Your task to perform on an android device: Go to notification settings Image 0: 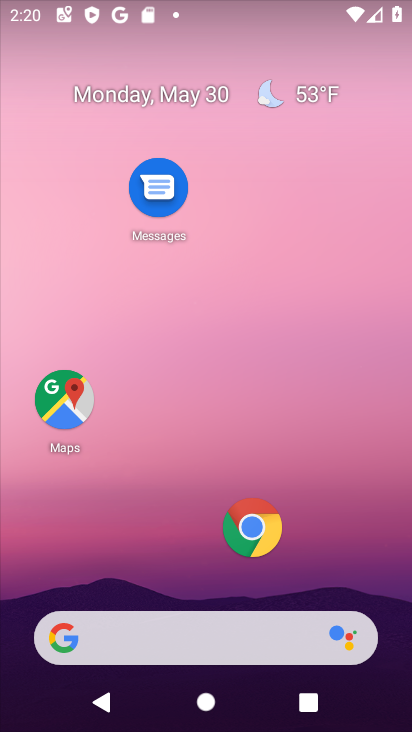
Step 0: drag from (169, 566) to (319, 49)
Your task to perform on an android device: Go to notification settings Image 1: 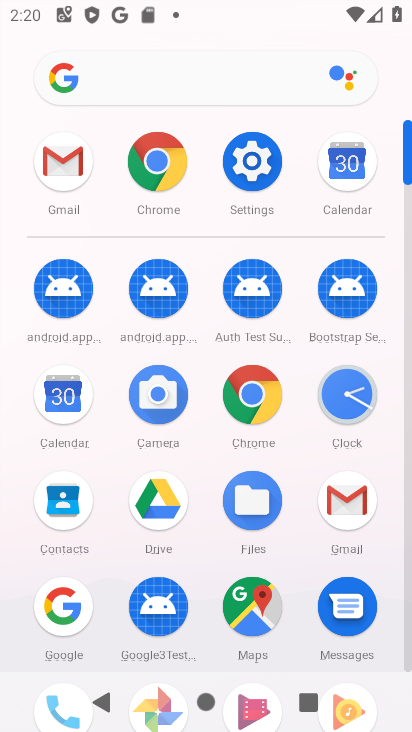
Step 1: drag from (207, 252) to (216, 54)
Your task to perform on an android device: Go to notification settings Image 2: 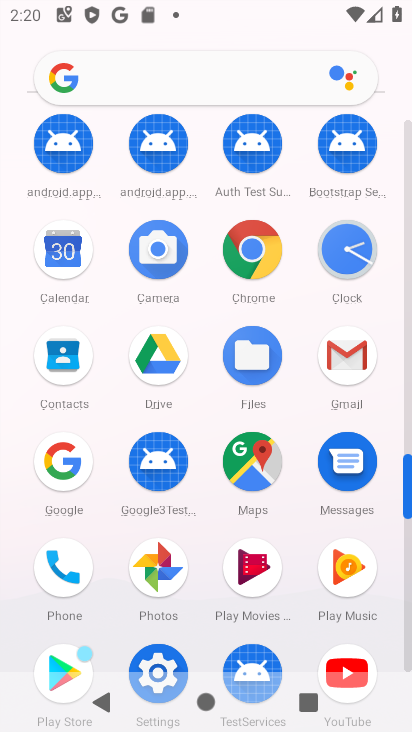
Step 2: click (167, 661)
Your task to perform on an android device: Go to notification settings Image 3: 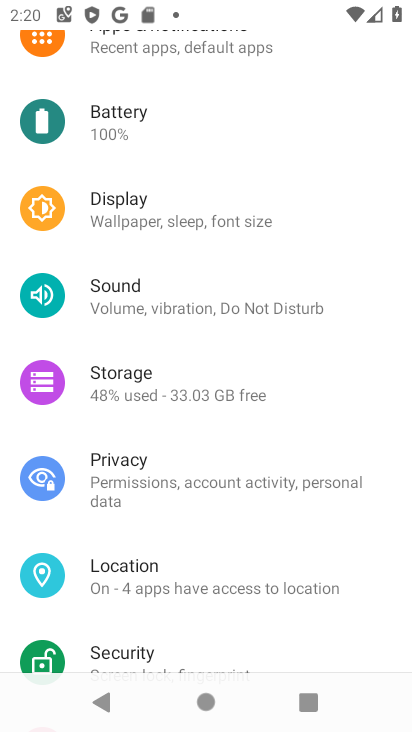
Step 3: drag from (221, 412) to (176, 601)
Your task to perform on an android device: Go to notification settings Image 4: 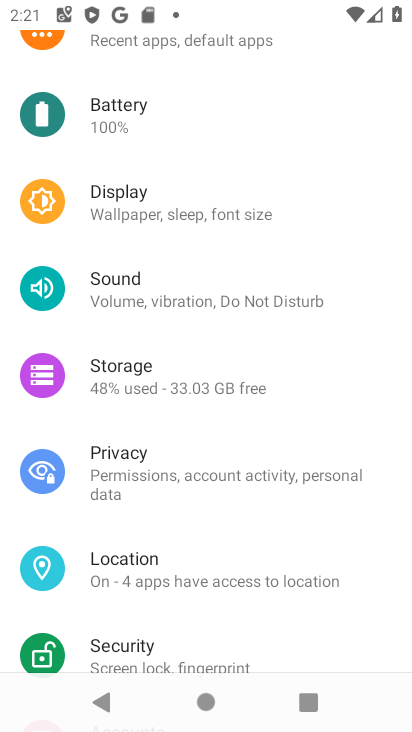
Step 4: drag from (260, 169) to (225, 544)
Your task to perform on an android device: Go to notification settings Image 5: 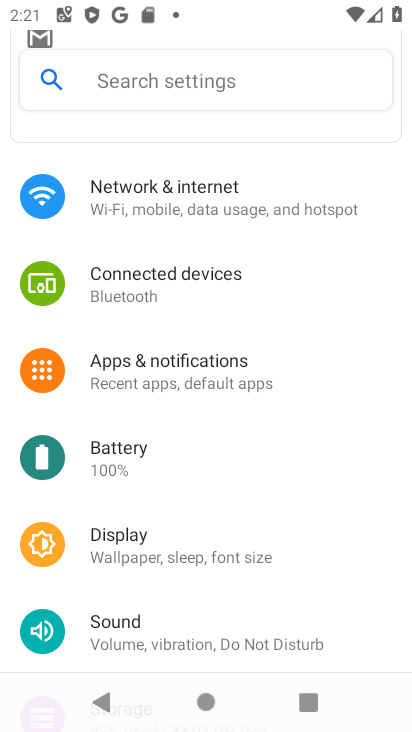
Step 5: click (176, 382)
Your task to perform on an android device: Go to notification settings Image 6: 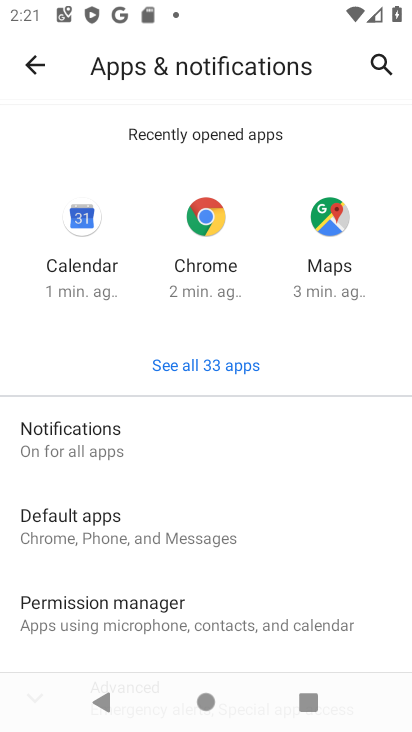
Step 6: click (198, 454)
Your task to perform on an android device: Go to notification settings Image 7: 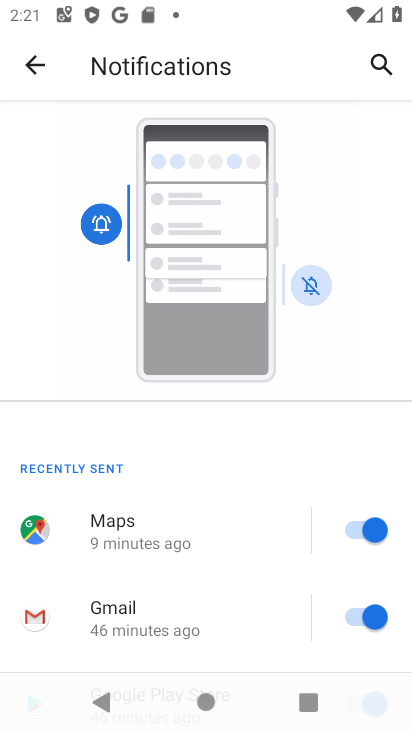
Step 7: task complete